Your task to perform on an android device: clear history in the chrome app Image 0: 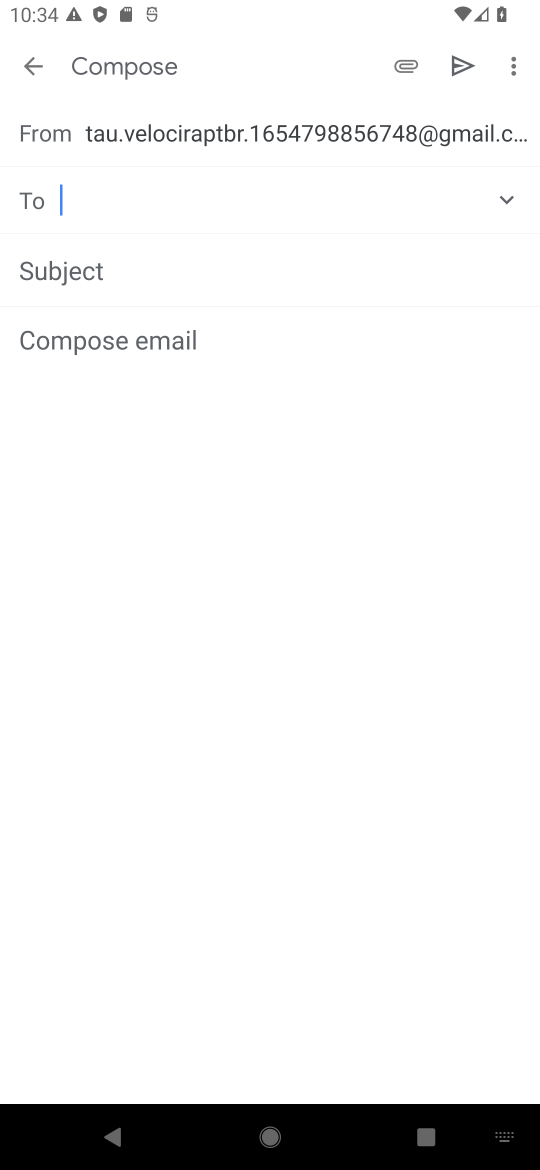
Step 0: press home button
Your task to perform on an android device: clear history in the chrome app Image 1: 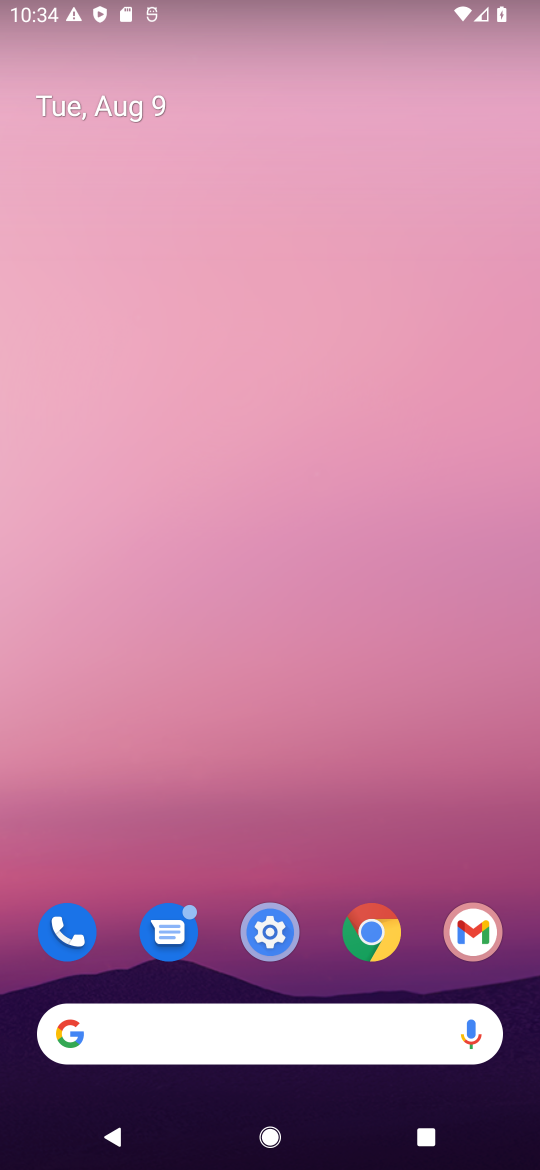
Step 1: click (345, 941)
Your task to perform on an android device: clear history in the chrome app Image 2: 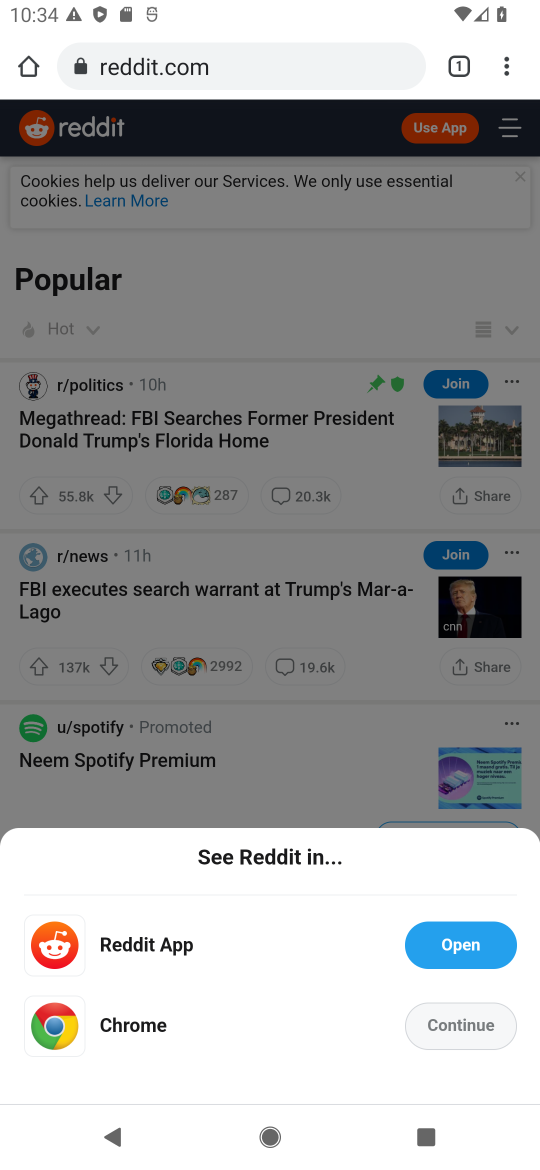
Step 2: click (502, 62)
Your task to perform on an android device: clear history in the chrome app Image 3: 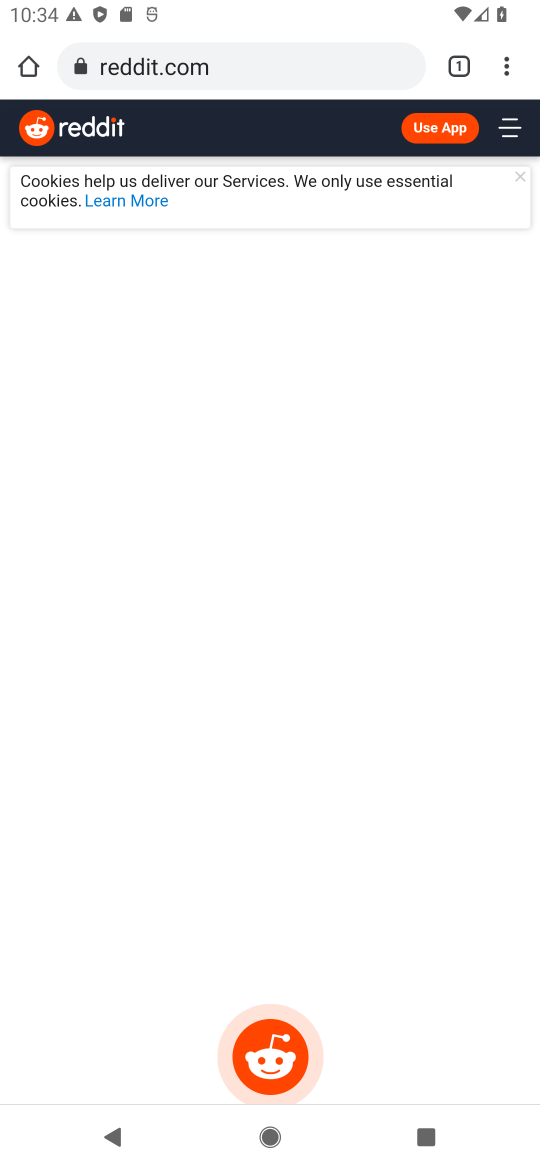
Step 3: click (503, 71)
Your task to perform on an android device: clear history in the chrome app Image 4: 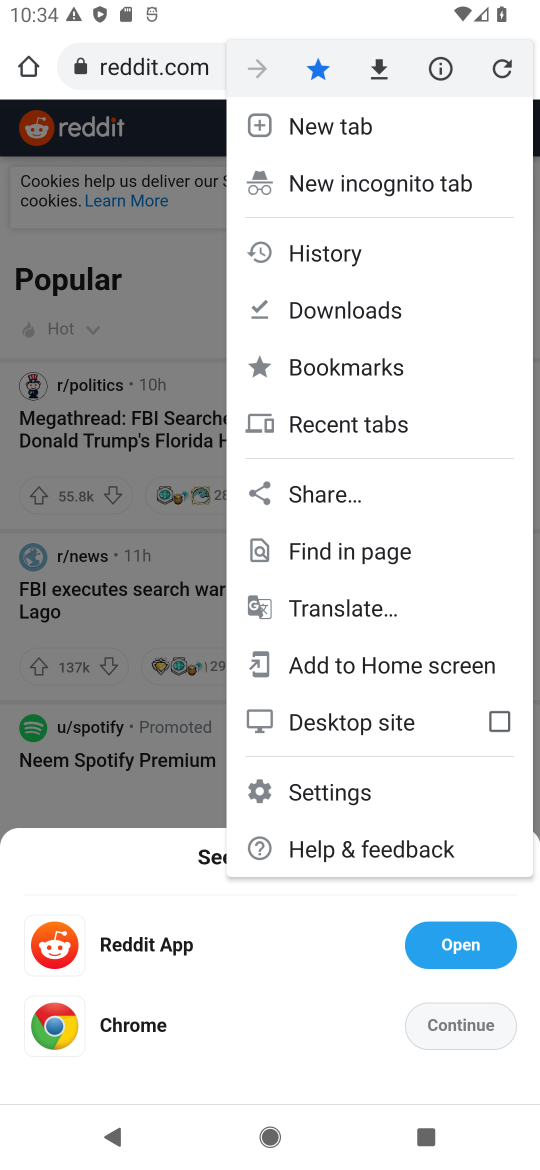
Step 4: click (351, 255)
Your task to perform on an android device: clear history in the chrome app Image 5: 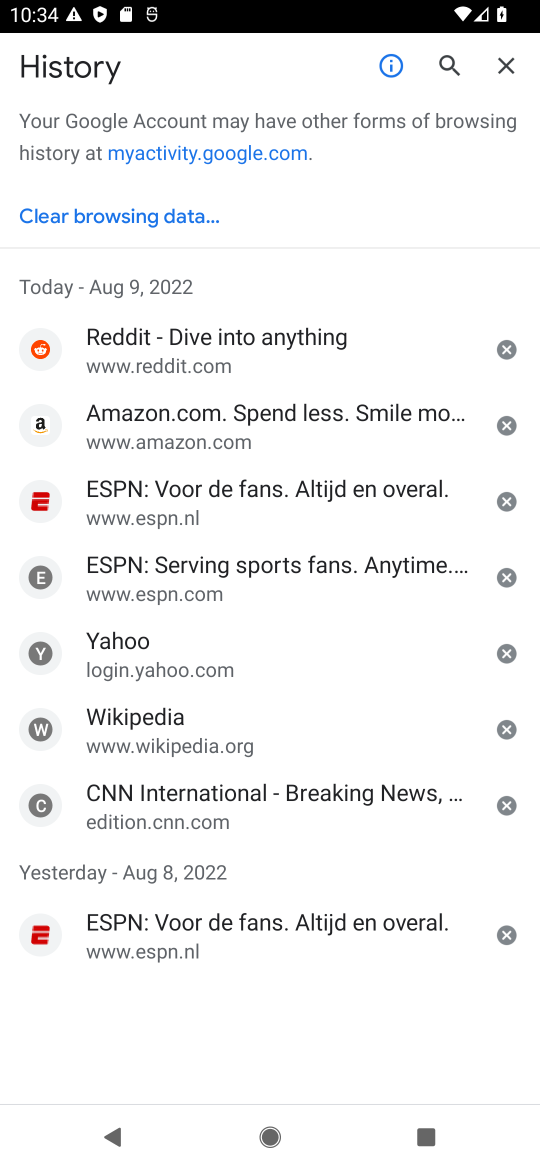
Step 5: click (168, 207)
Your task to perform on an android device: clear history in the chrome app Image 6: 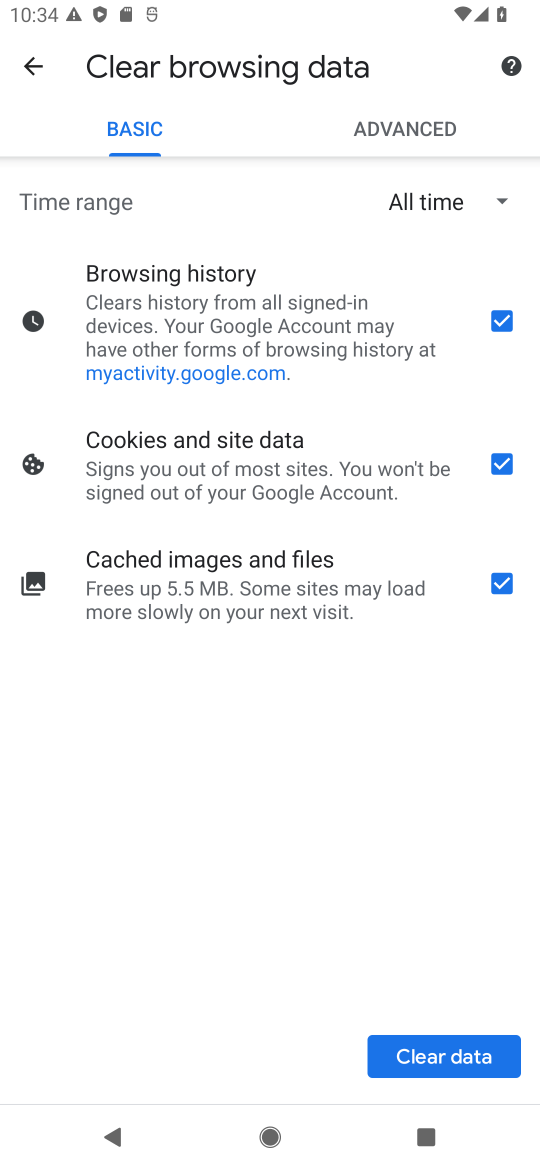
Step 6: click (441, 1059)
Your task to perform on an android device: clear history in the chrome app Image 7: 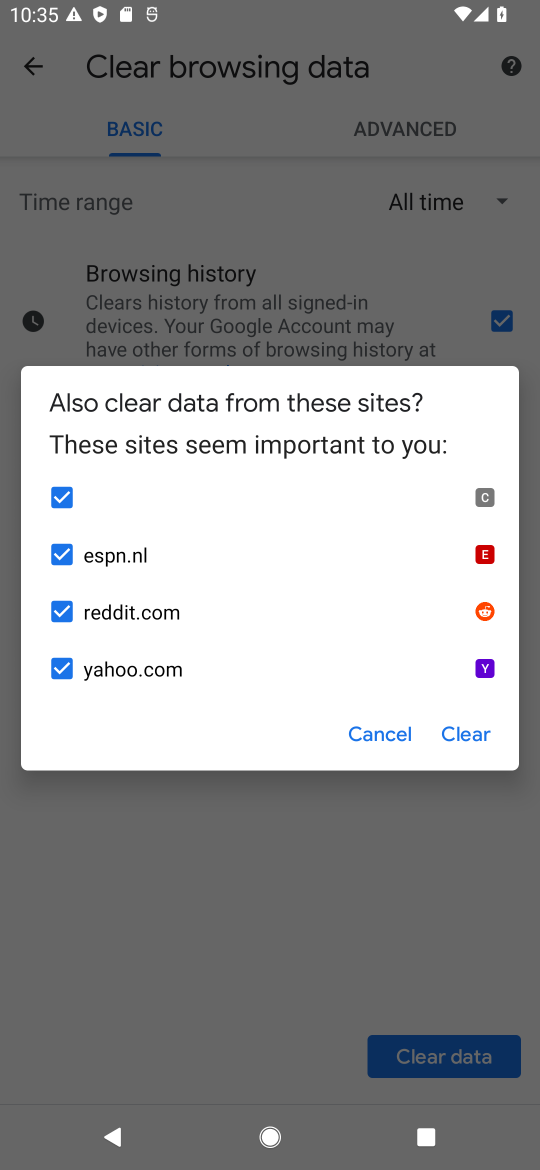
Step 7: click (451, 744)
Your task to perform on an android device: clear history in the chrome app Image 8: 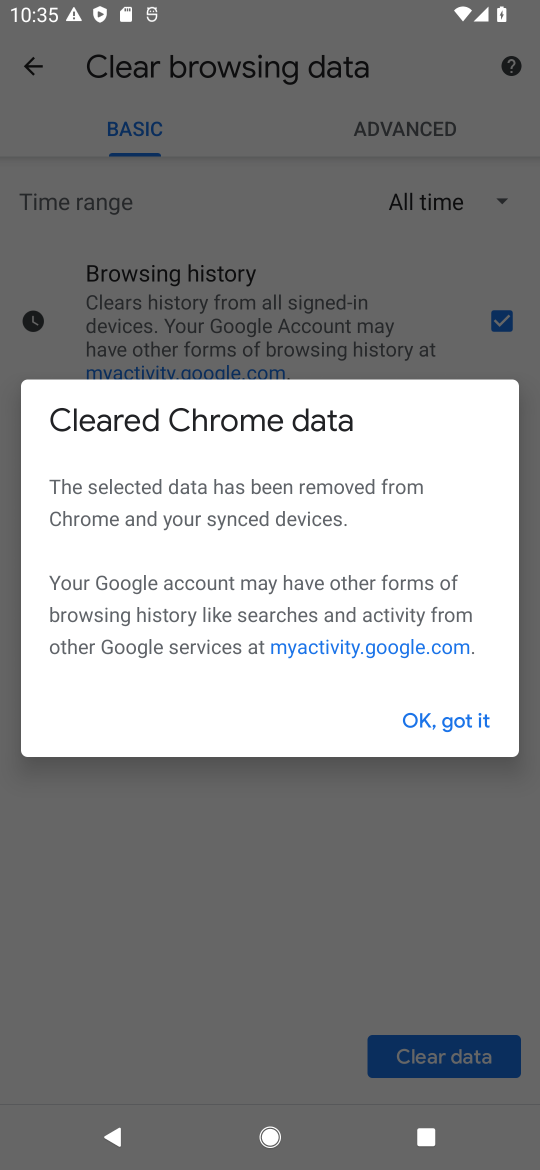
Step 8: click (463, 715)
Your task to perform on an android device: clear history in the chrome app Image 9: 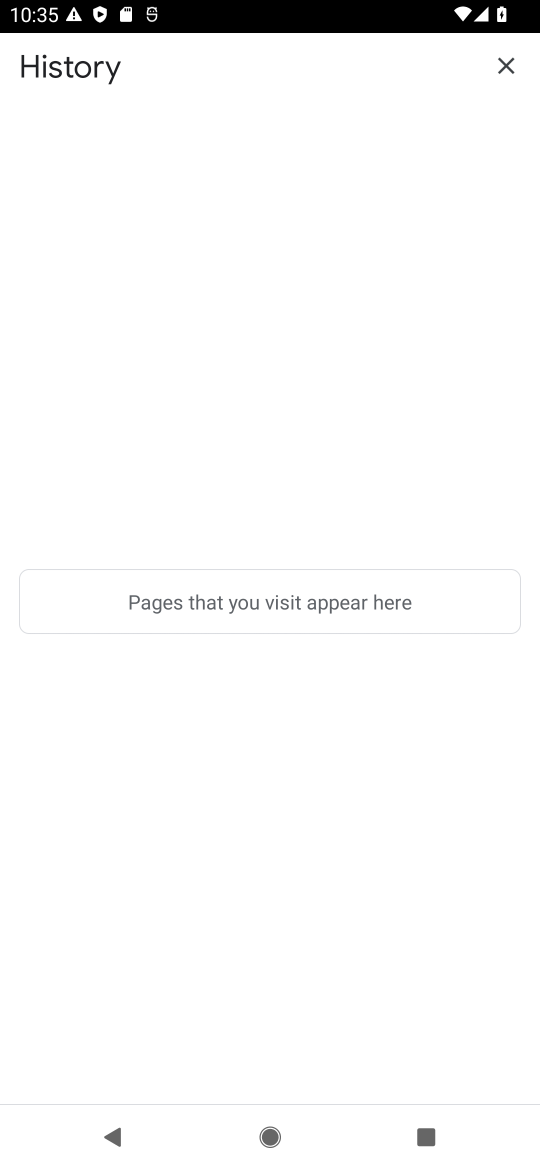
Step 9: task complete